Your task to perform on an android device: change the clock display to digital Image 0: 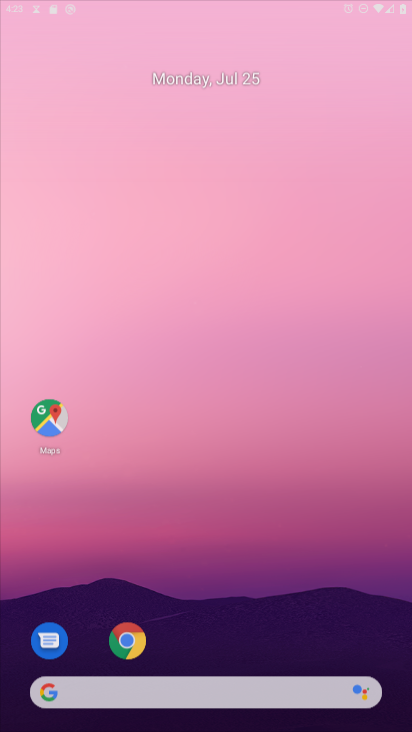
Step 0: press home button
Your task to perform on an android device: change the clock display to digital Image 1: 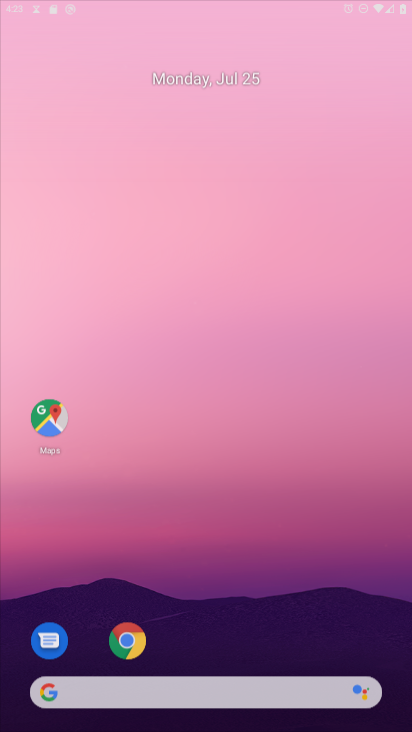
Step 1: click (237, 424)
Your task to perform on an android device: change the clock display to digital Image 2: 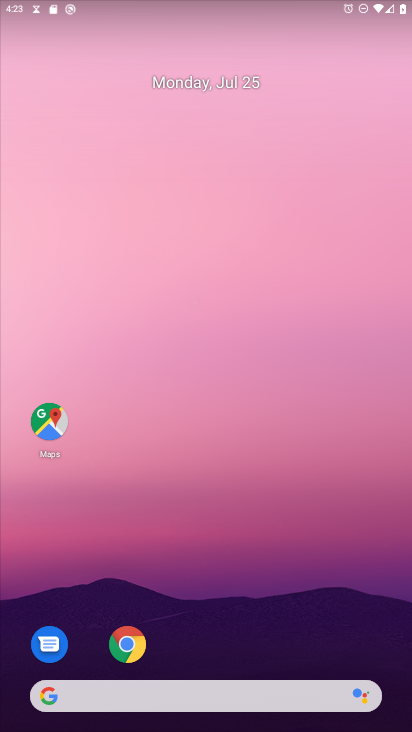
Step 2: drag from (199, 5) to (234, 392)
Your task to perform on an android device: change the clock display to digital Image 3: 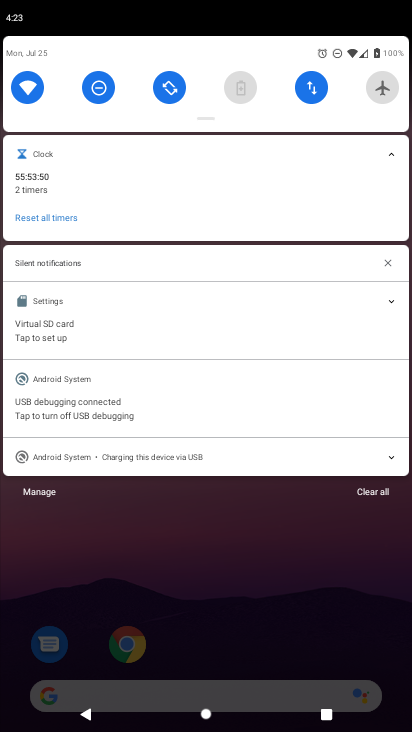
Step 3: click (212, 553)
Your task to perform on an android device: change the clock display to digital Image 4: 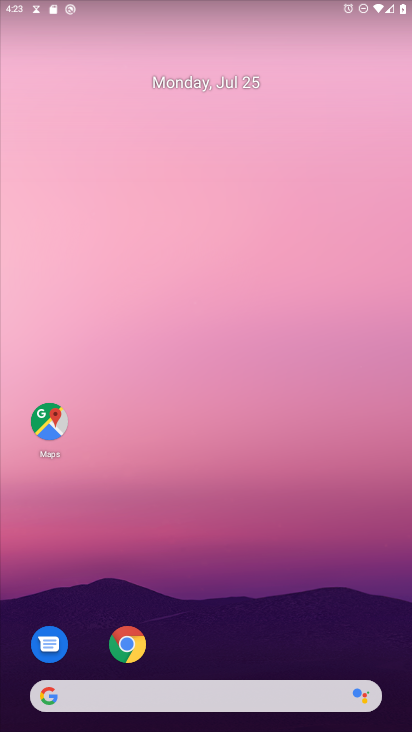
Step 4: drag from (233, 573) to (211, 100)
Your task to perform on an android device: change the clock display to digital Image 5: 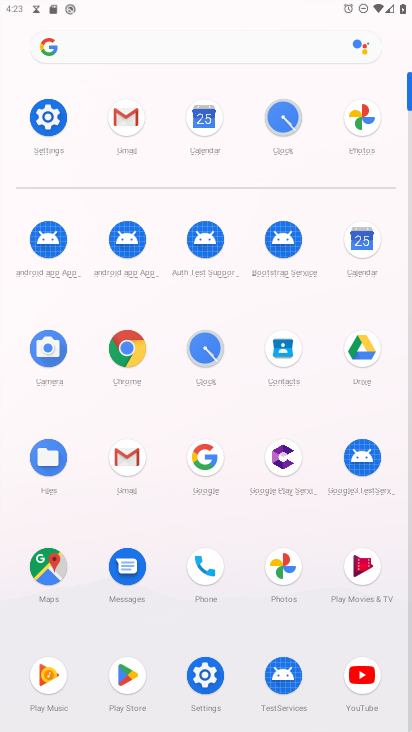
Step 5: click (208, 349)
Your task to perform on an android device: change the clock display to digital Image 6: 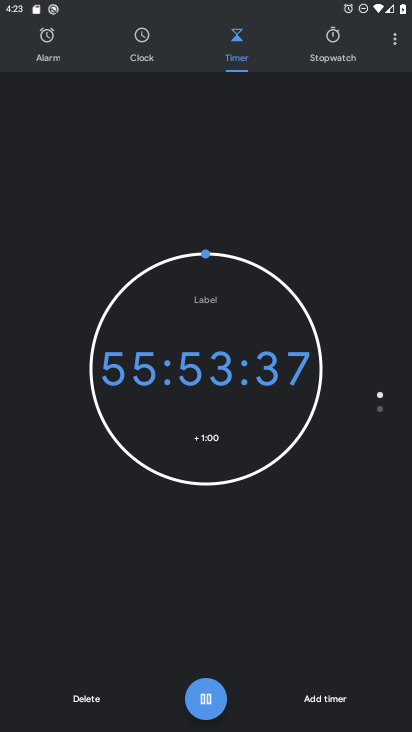
Step 6: click (394, 36)
Your task to perform on an android device: change the clock display to digital Image 7: 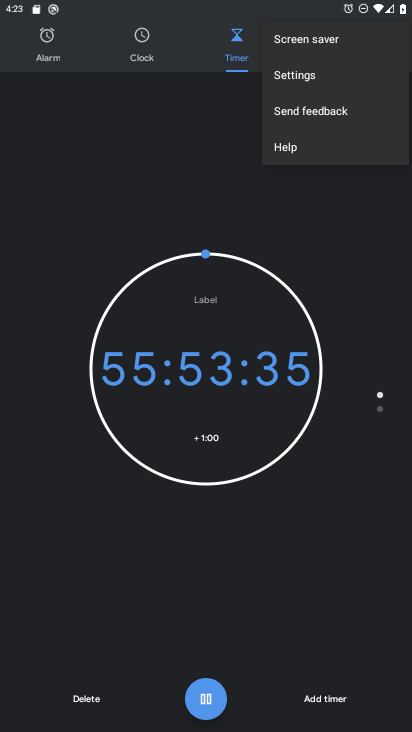
Step 7: click (306, 75)
Your task to perform on an android device: change the clock display to digital Image 8: 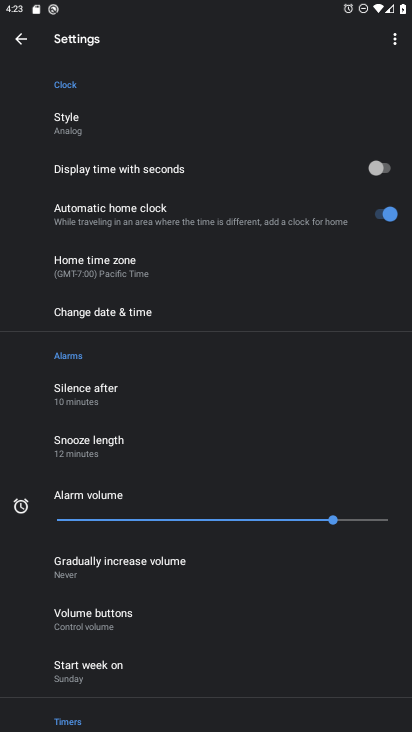
Step 8: click (87, 123)
Your task to perform on an android device: change the clock display to digital Image 9: 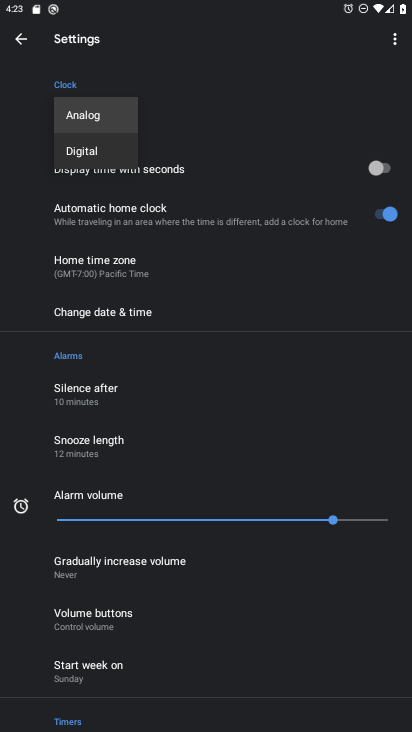
Step 9: click (80, 149)
Your task to perform on an android device: change the clock display to digital Image 10: 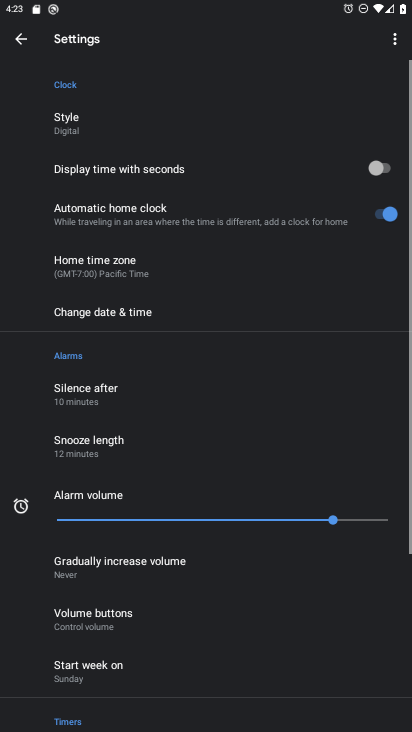
Step 10: task complete